Your task to perform on an android device: Search for seafood restaurants on Google Maps Image 0: 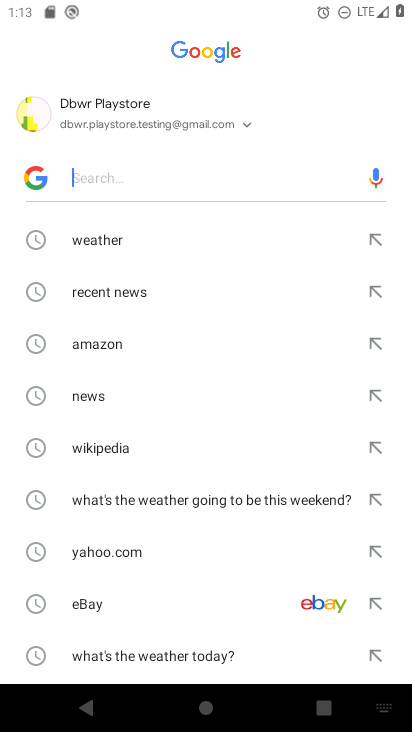
Step 0: press back button
Your task to perform on an android device: Search for seafood restaurants on Google Maps Image 1: 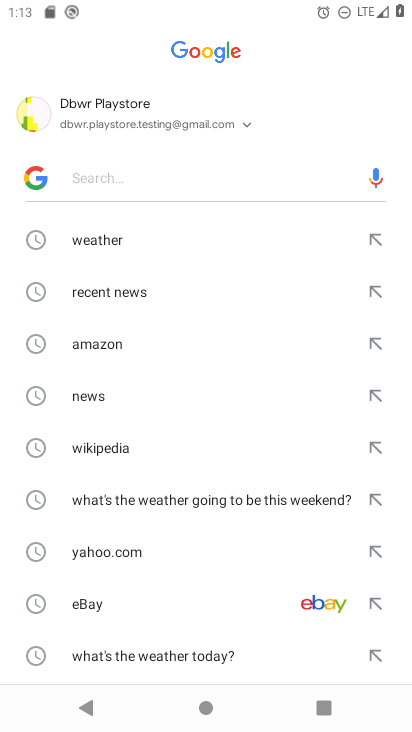
Step 1: press back button
Your task to perform on an android device: Search for seafood restaurants on Google Maps Image 2: 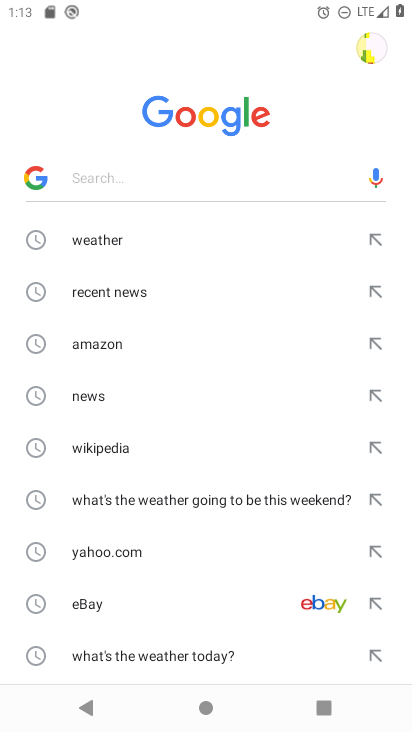
Step 2: press back button
Your task to perform on an android device: Search for seafood restaurants on Google Maps Image 3: 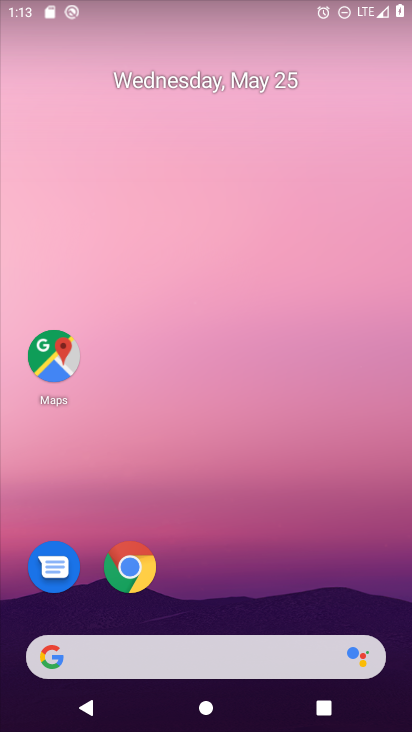
Step 3: drag from (392, 697) to (374, 189)
Your task to perform on an android device: Search for seafood restaurants on Google Maps Image 4: 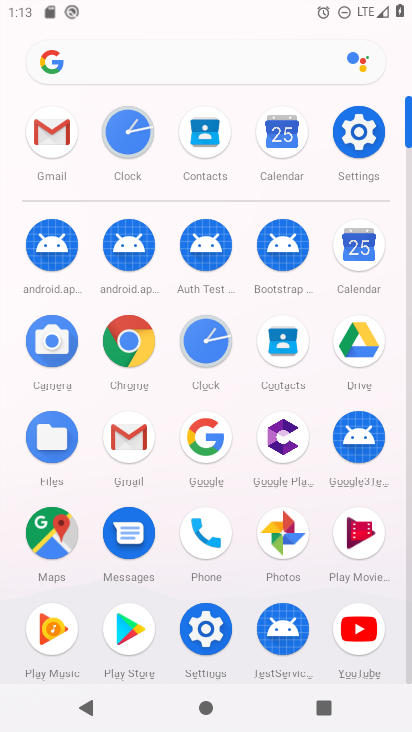
Step 4: click (58, 519)
Your task to perform on an android device: Search for seafood restaurants on Google Maps Image 5: 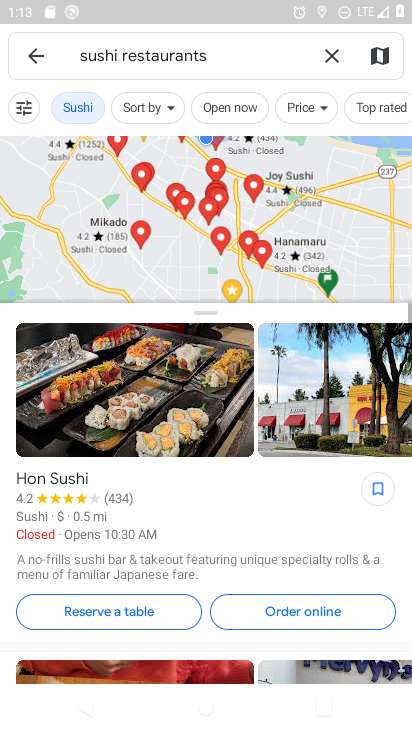
Step 5: click (333, 55)
Your task to perform on an android device: Search for seafood restaurants on Google Maps Image 6: 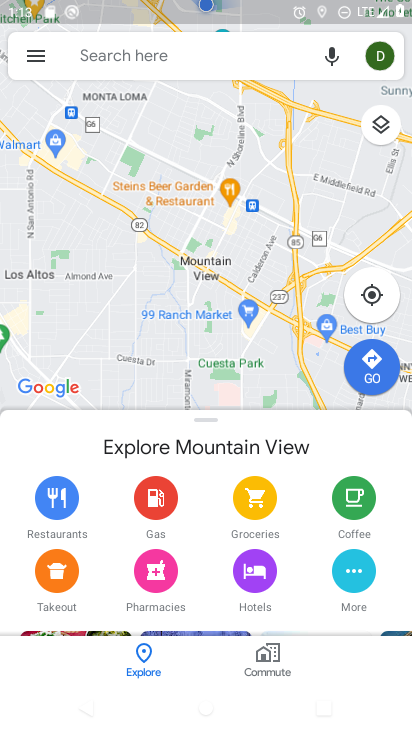
Step 6: click (98, 58)
Your task to perform on an android device: Search for seafood restaurants on Google Maps Image 7: 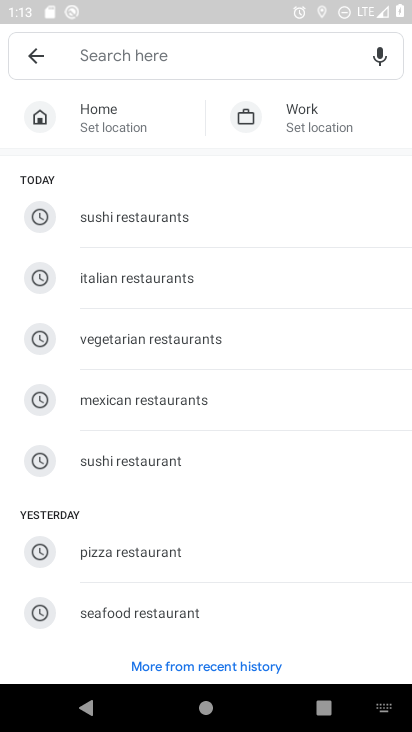
Step 7: type "seafood restaurants"
Your task to perform on an android device: Search for seafood restaurants on Google Maps Image 8: 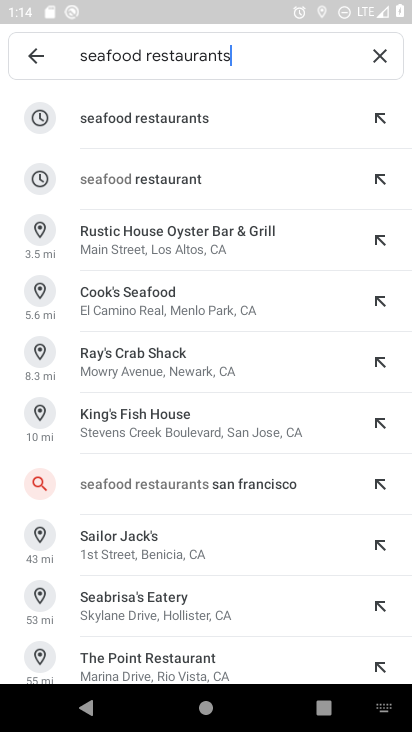
Step 8: click (155, 115)
Your task to perform on an android device: Search for seafood restaurants on Google Maps Image 9: 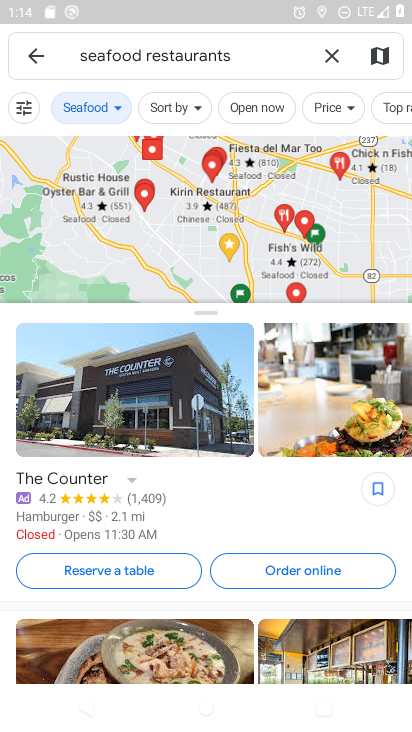
Step 9: task complete